Your task to perform on an android device: Search for Mexican restaurants on Maps Image 0: 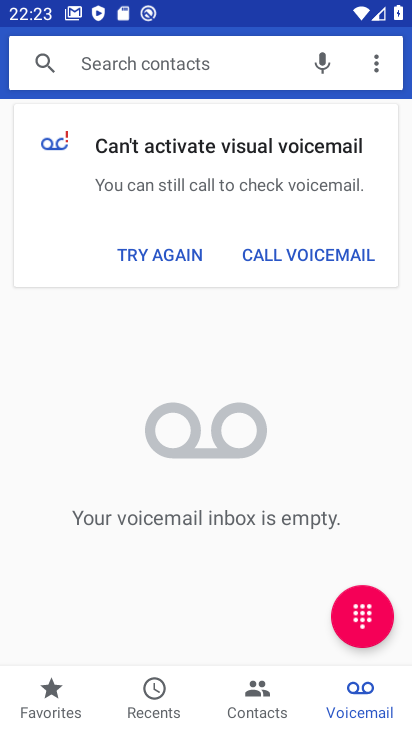
Step 0: press home button
Your task to perform on an android device: Search for Mexican restaurants on Maps Image 1: 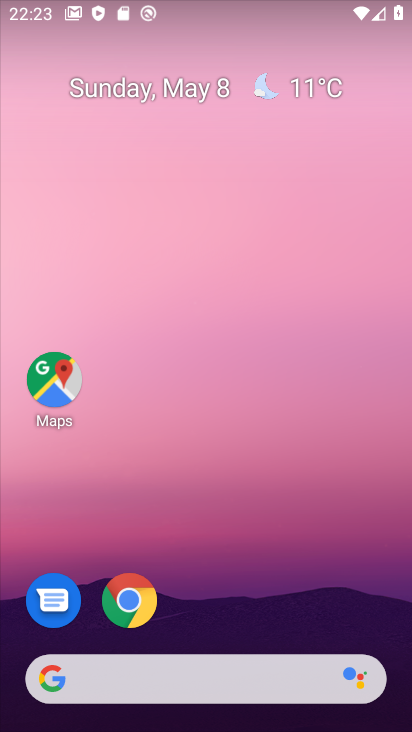
Step 1: click (54, 361)
Your task to perform on an android device: Search for Mexican restaurants on Maps Image 2: 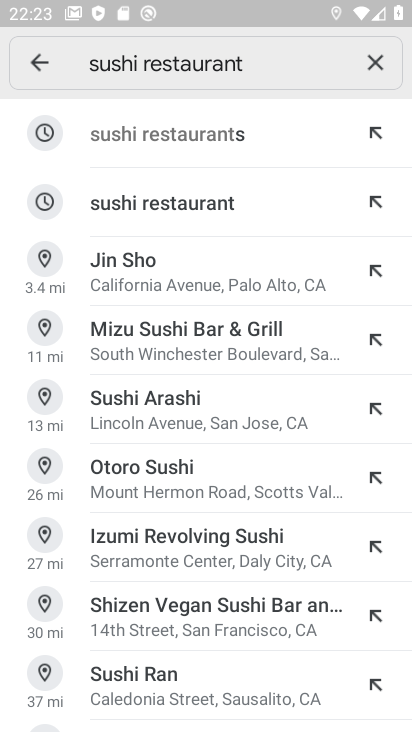
Step 2: click (375, 55)
Your task to perform on an android device: Search for Mexican restaurants on Maps Image 3: 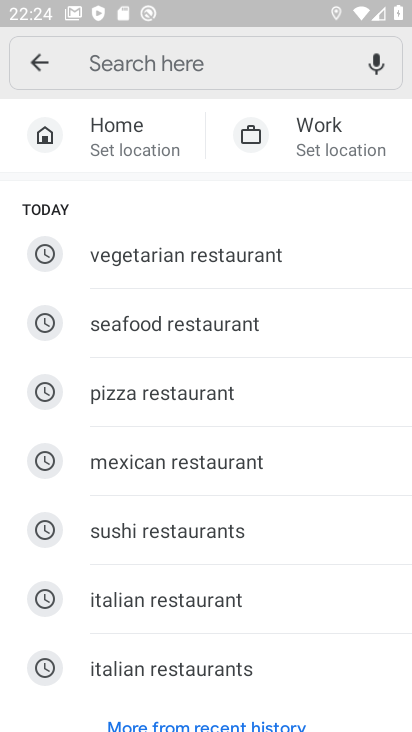
Step 3: type "mexican restaurant"
Your task to perform on an android device: Search for Mexican restaurants on Maps Image 4: 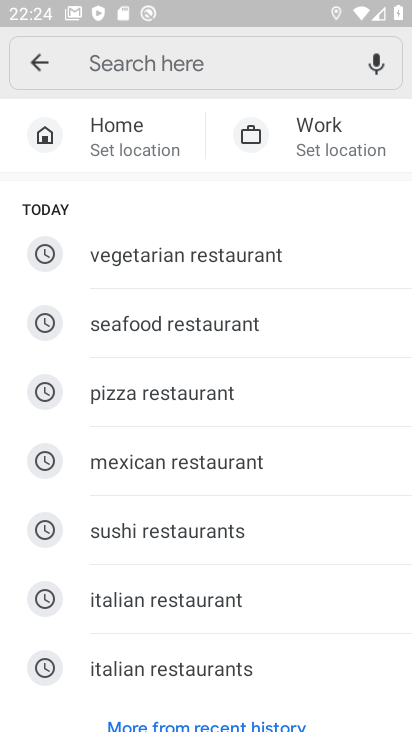
Step 4: click (170, 452)
Your task to perform on an android device: Search for Mexican restaurants on Maps Image 5: 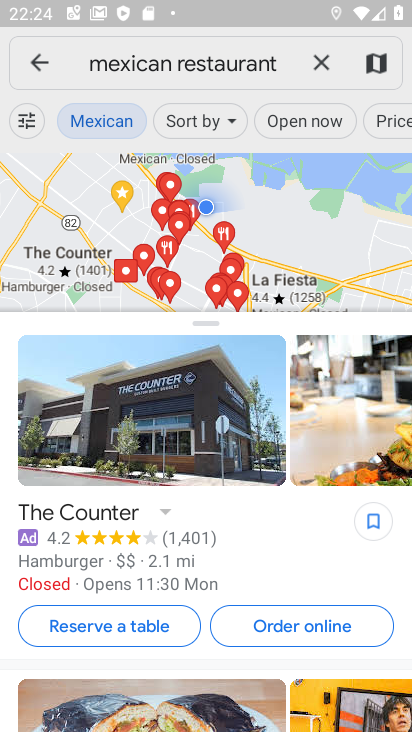
Step 5: task complete